Your task to perform on an android device: What's the weather? Image 0: 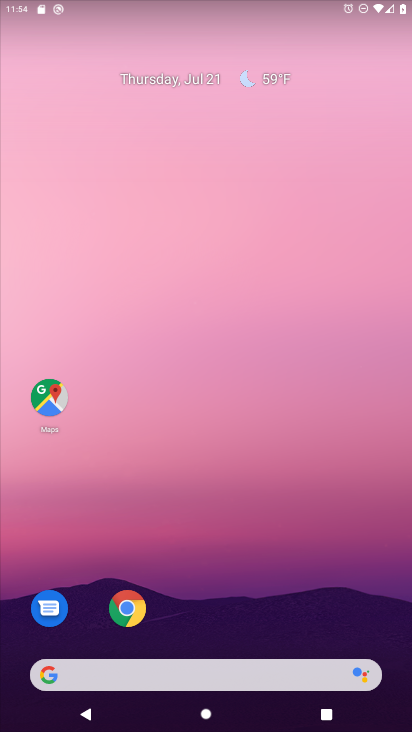
Step 0: drag from (390, 595) to (157, 32)
Your task to perform on an android device: What's the weather? Image 1: 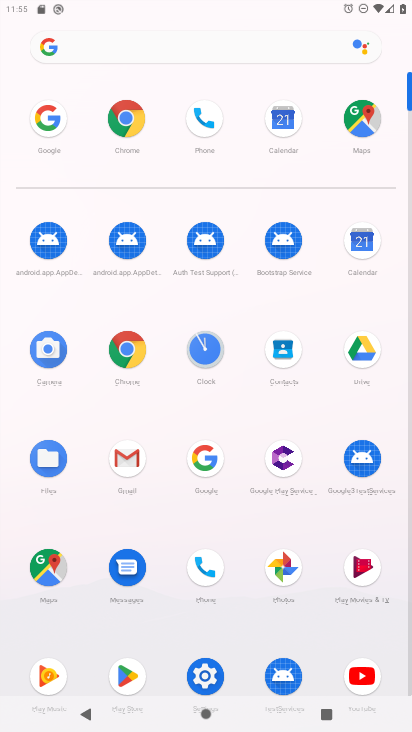
Step 1: click (213, 452)
Your task to perform on an android device: What's the weather? Image 2: 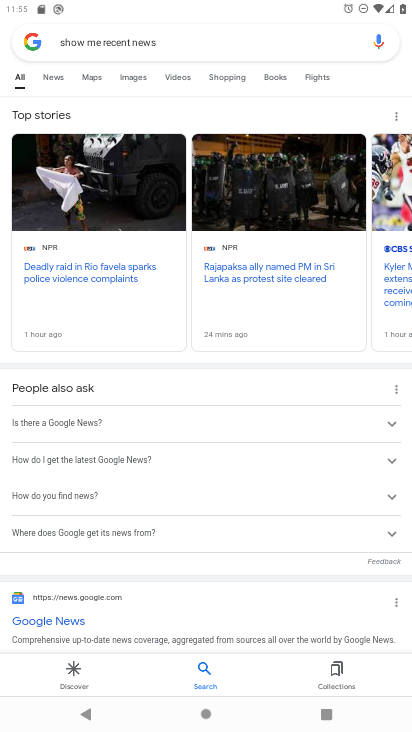
Step 2: press back button
Your task to perform on an android device: What's the weather? Image 3: 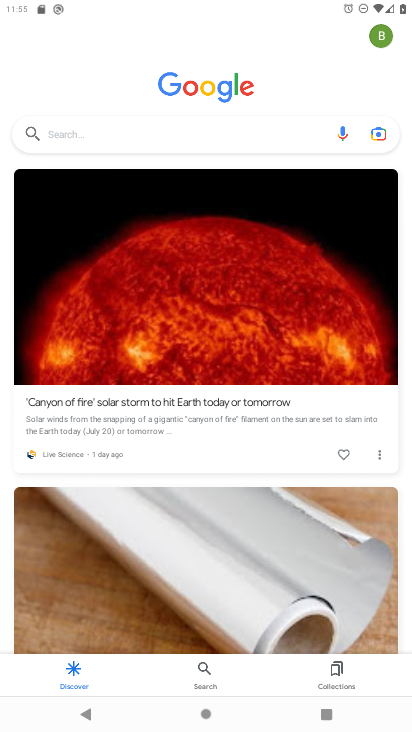
Step 3: click (56, 134)
Your task to perform on an android device: What's the weather? Image 4: 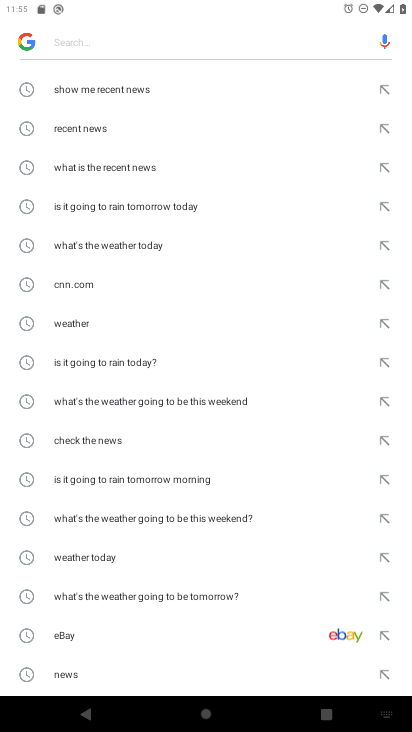
Step 4: type "What's the weather?"
Your task to perform on an android device: What's the weather? Image 5: 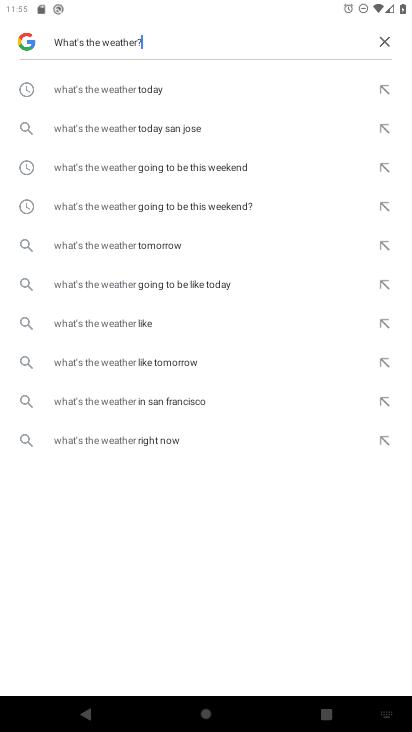
Step 5: task complete